Your task to perform on an android device: choose inbox layout in the gmail app Image 0: 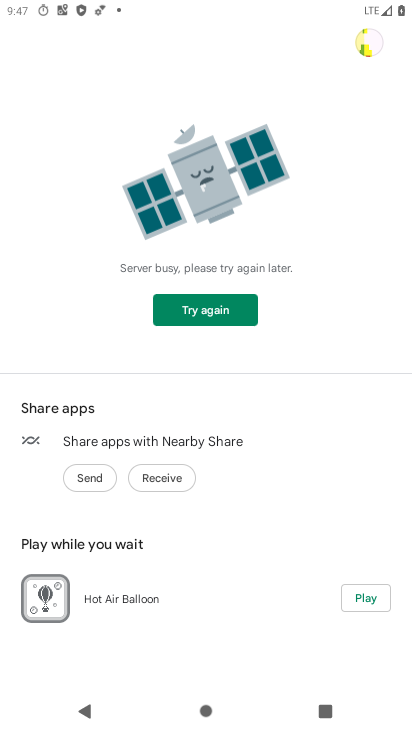
Step 0: press back button
Your task to perform on an android device: choose inbox layout in the gmail app Image 1: 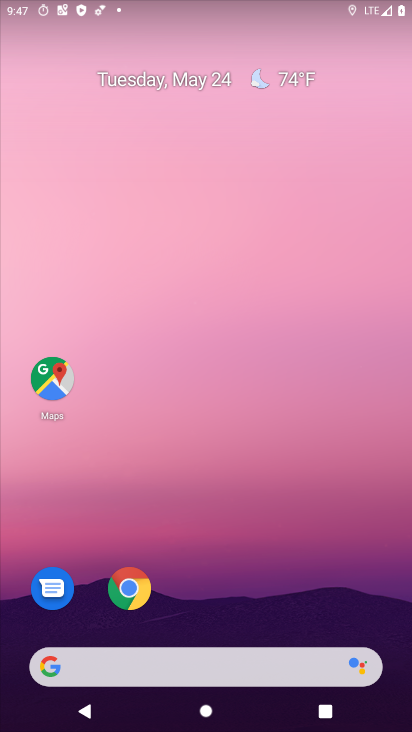
Step 1: drag from (249, 556) to (157, 7)
Your task to perform on an android device: choose inbox layout in the gmail app Image 2: 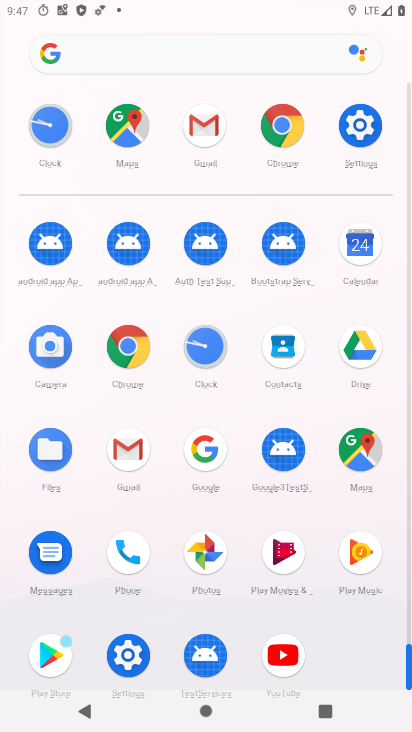
Step 2: drag from (3, 544) to (8, 223)
Your task to perform on an android device: choose inbox layout in the gmail app Image 3: 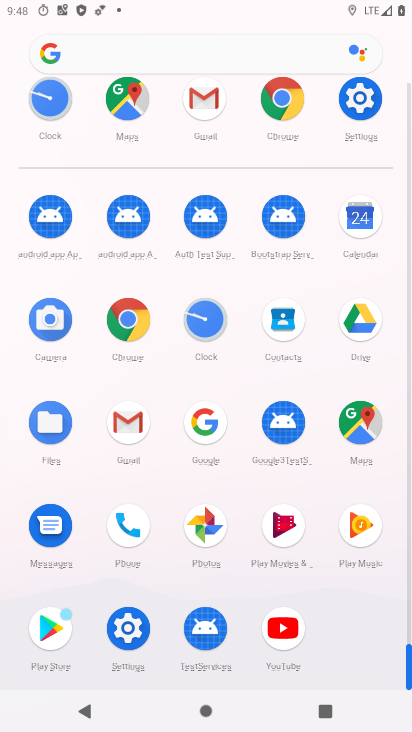
Step 3: drag from (8, 586) to (30, 311)
Your task to perform on an android device: choose inbox layout in the gmail app Image 4: 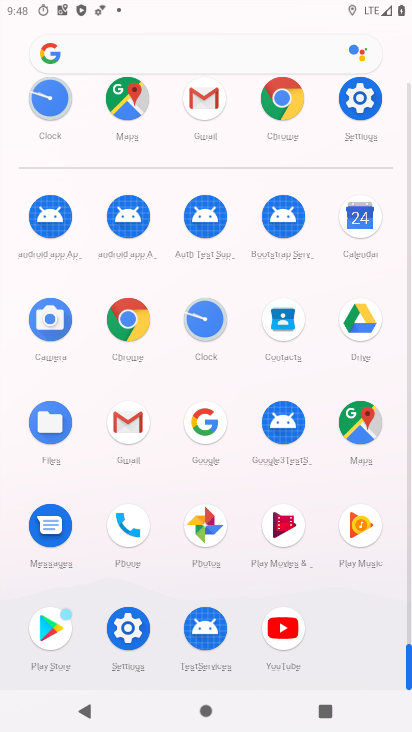
Step 4: click (127, 420)
Your task to perform on an android device: choose inbox layout in the gmail app Image 5: 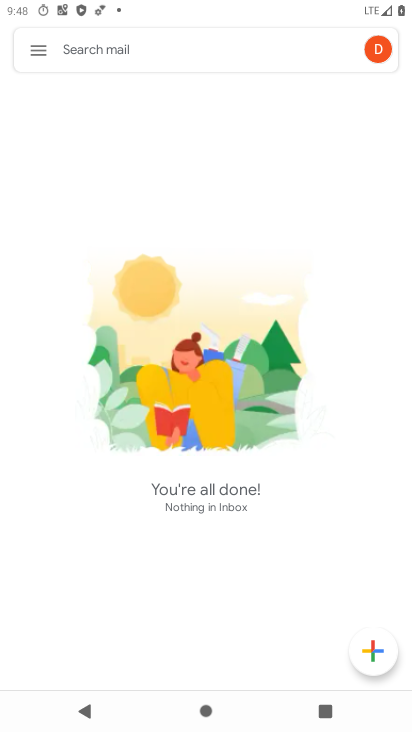
Step 5: click (35, 55)
Your task to perform on an android device: choose inbox layout in the gmail app Image 6: 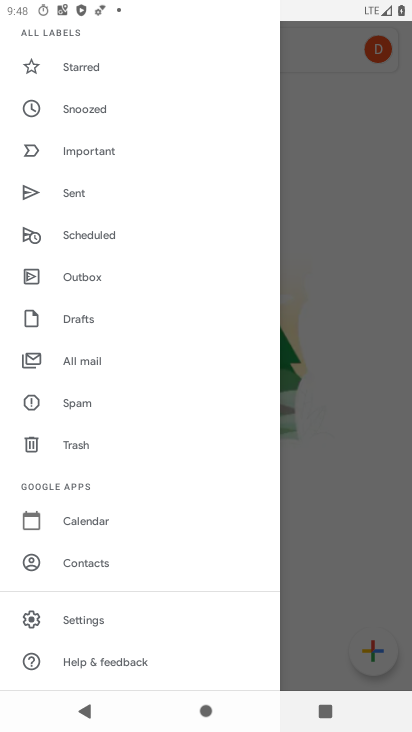
Step 6: click (85, 616)
Your task to perform on an android device: choose inbox layout in the gmail app Image 7: 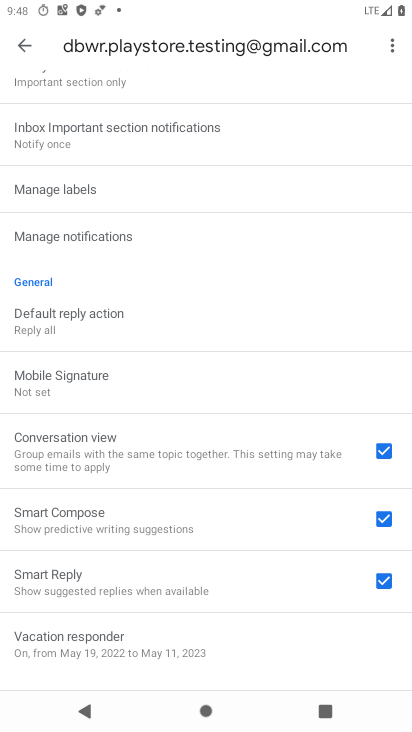
Step 7: drag from (204, 185) to (207, 632)
Your task to perform on an android device: choose inbox layout in the gmail app Image 8: 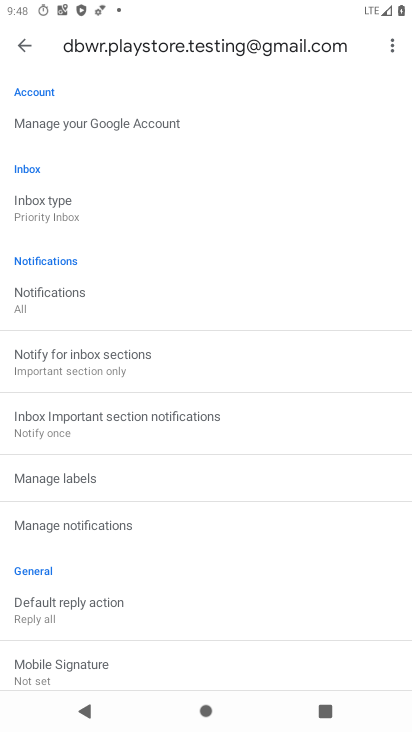
Step 8: click (79, 201)
Your task to perform on an android device: choose inbox layout in the gmail app Image 9: 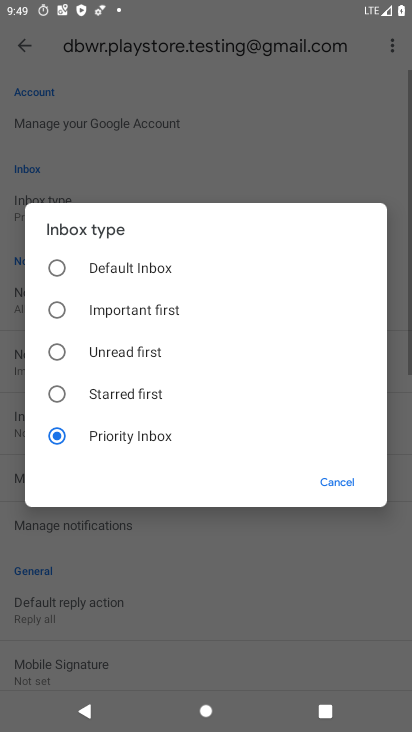
Step 9: click (135, 262)
Your task to perform on an android device: choose inbox layout in the gmail app Image 10: 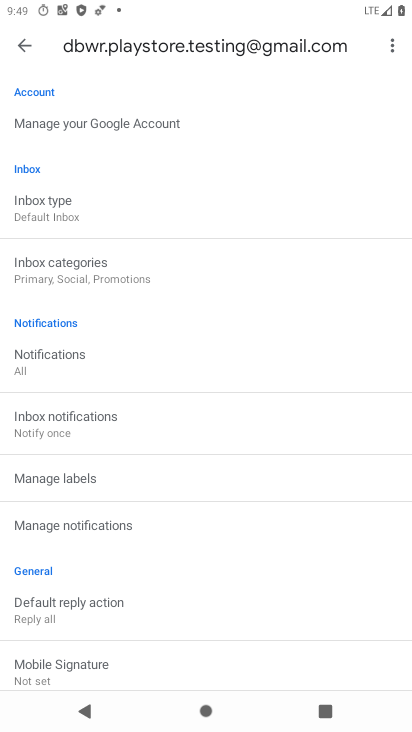
Step 10: task complete